Your task to perform on an android device: Open the calendar and show me this week's events? Image 0: 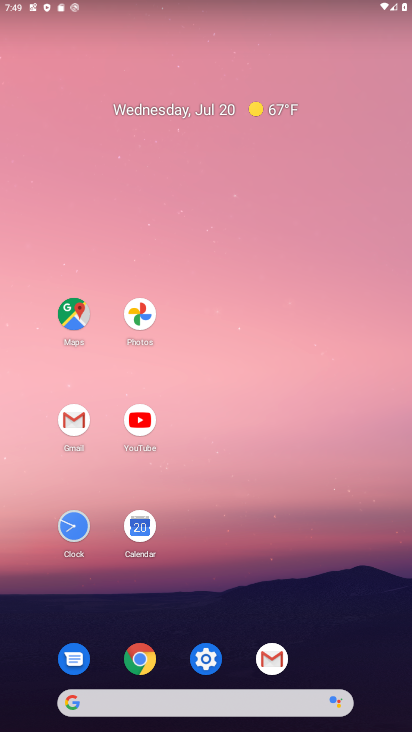
Step 0: click (143, 526)
Your task to perform on an android device: Open the calendar and show me this week's events? Image 1: 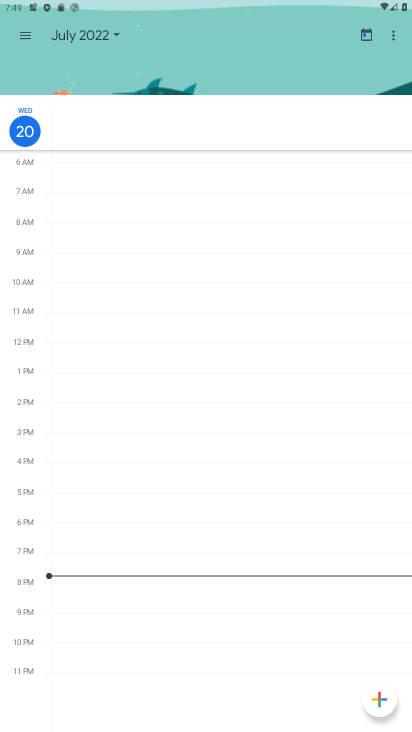
Step 1: click (22, 29)
Your task to perform on an android device: Open the calendar and show me this week's events? Image 2: 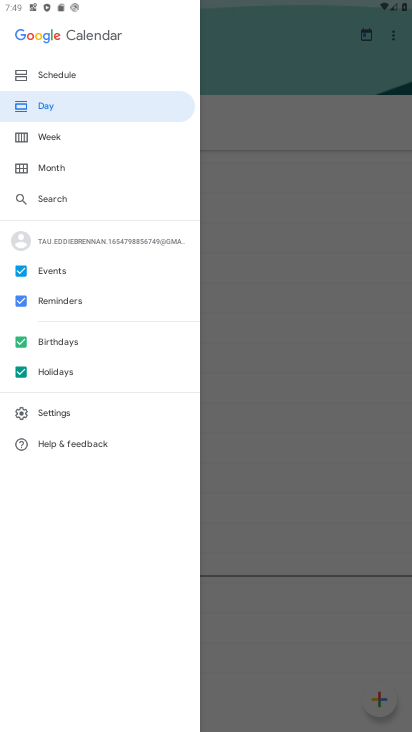
Step 2: click (40, 135)
Your task to perform on an android device: Open the calendar and show me this week's events? Image 3: 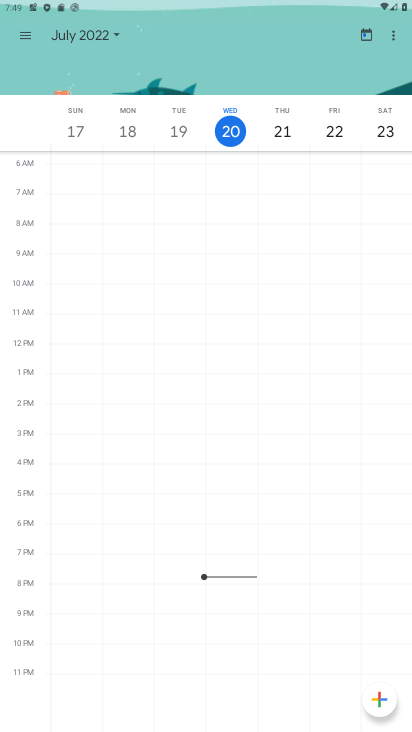
Step 3: task complete